Your task to perform on an android device: uninstall "Microsoft Outlook" Image 0: 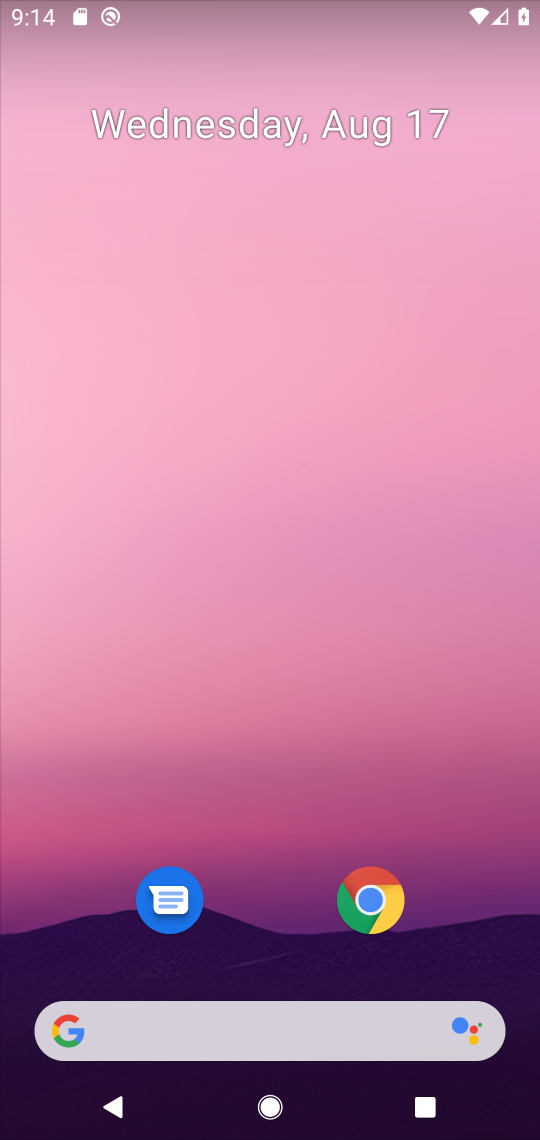
Step 0: drag from (237, 1009) to (280, 164)
Your task to perform on an android device: uninstall "Microsoft Outlook" Image 1: 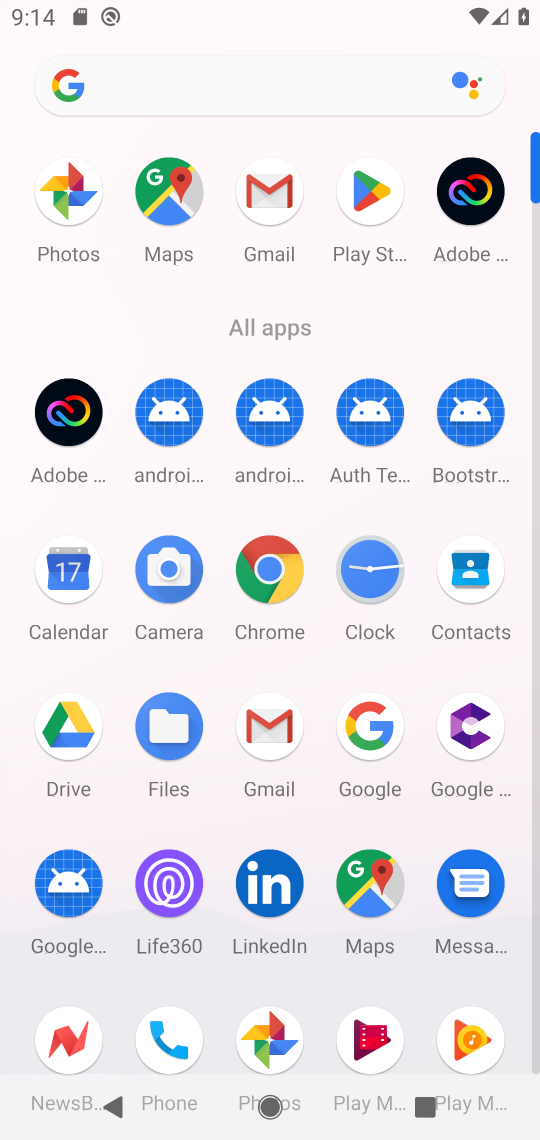
Step 1: click (375, 248)
Your task to perform on an android device: uninstall "Microsoft Outlook" Image 2: 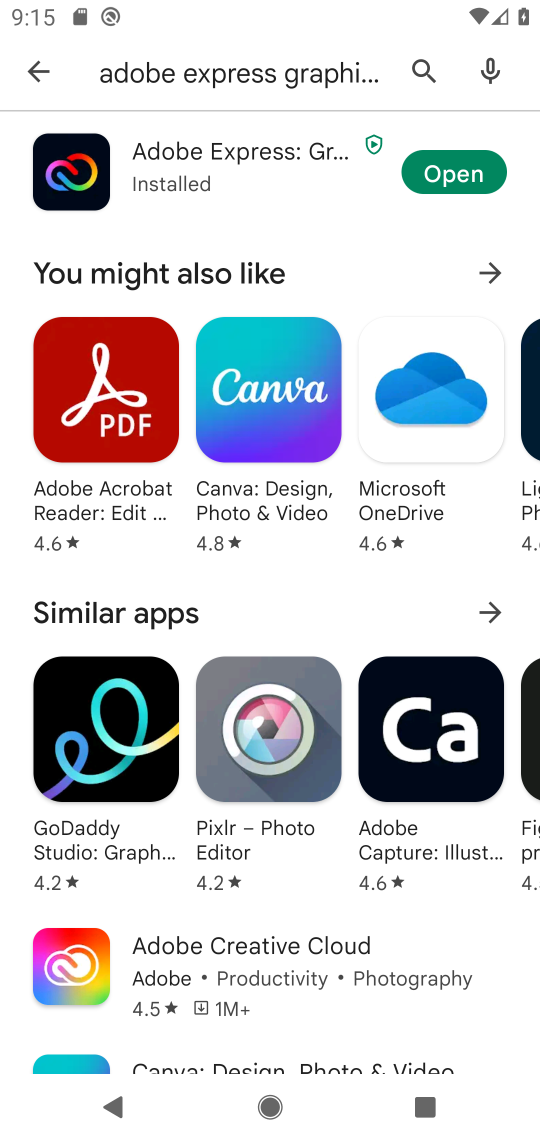
Step 2: click (373, 249)
Your task to perform on an android device: uninstall "Microsoft Outlook" Image 3: 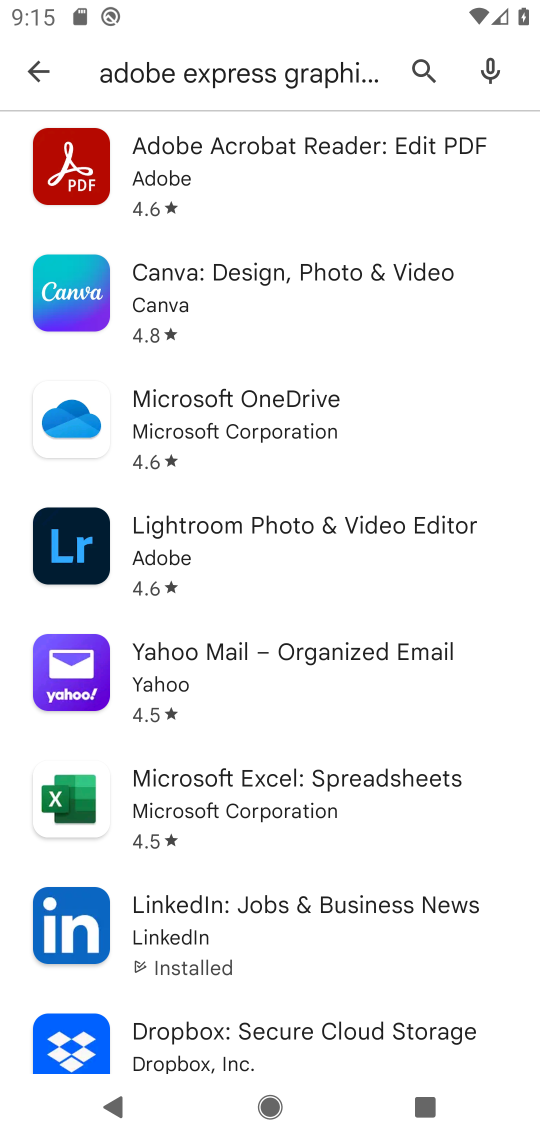
Step 3: click (47, 69)
Your task to perform on an android device: uninstall "Microsoft Outlook" Image 4: 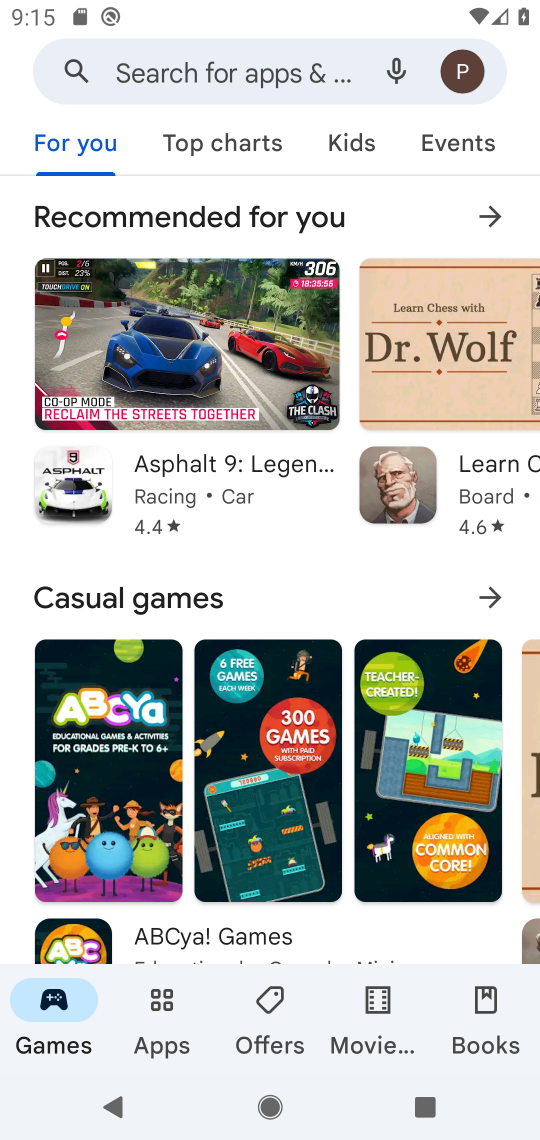
Step 4: click (181, 80)
Your task to perform on an android device: uninstall "Microsoft Outlook" Image 5: 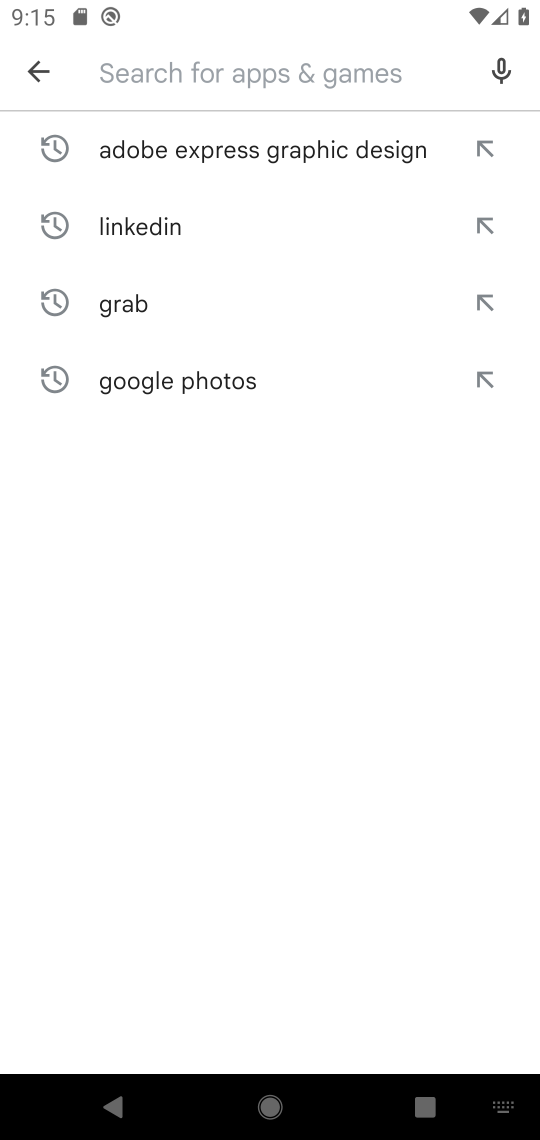
Step 5: type "Microsoft Outlook"
Your task to perform on an android device: uninstall "Microsoft Outlook" Image 6: 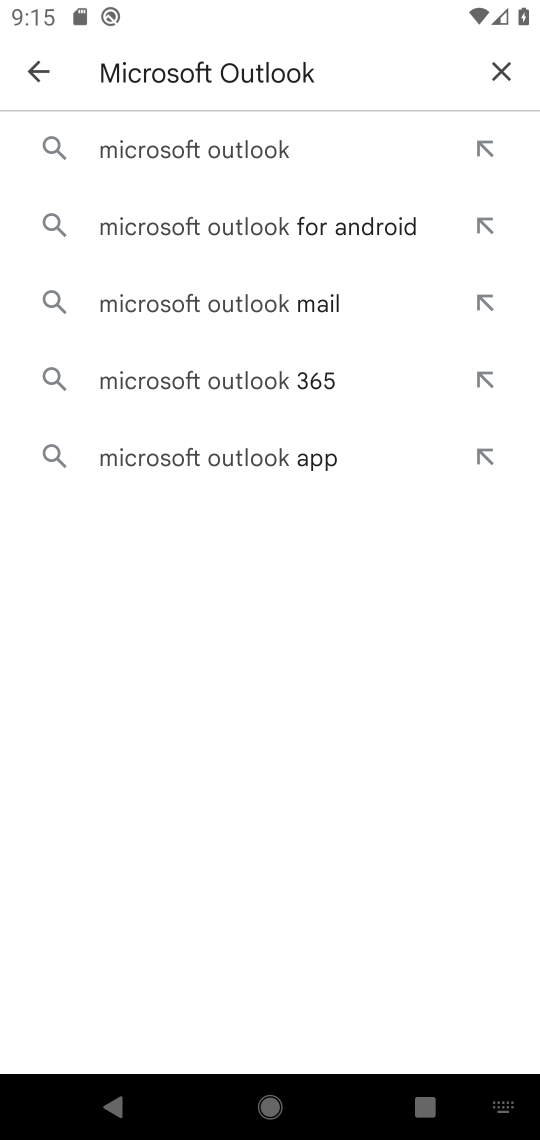
Step 6: click (340, 133)
Your task to perform on an android device: uninstall "Microsoft Outlook" Image 7: 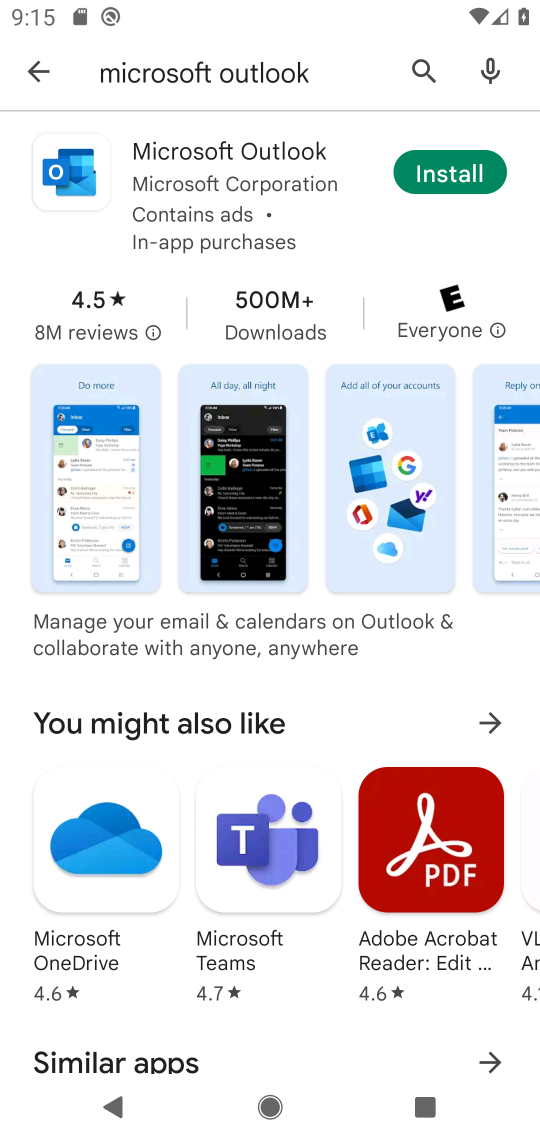
Step 7: task complete